Your task to perform on an android device: Go to notification settings Image 0: 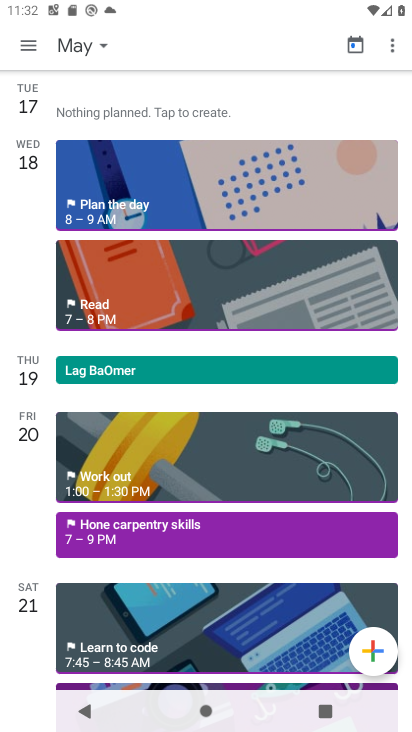
Step 0: press home button
Your task to perform on an android device: Go to notification settings Image 1: 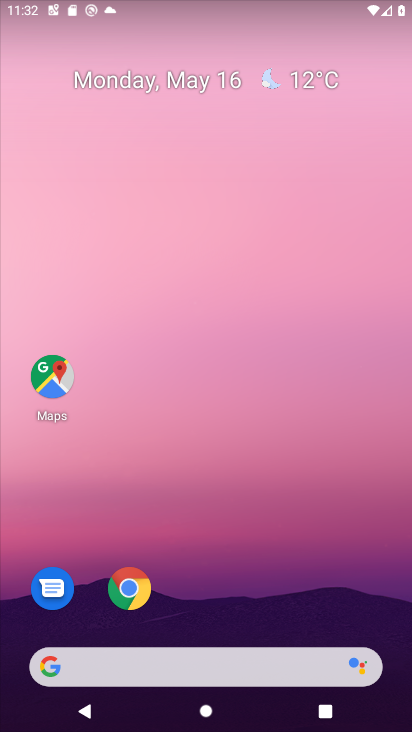
Step 1: drag from (219, 619) to (247, 55)
Your task to perform on an android device: Go to notification settings Image 2: 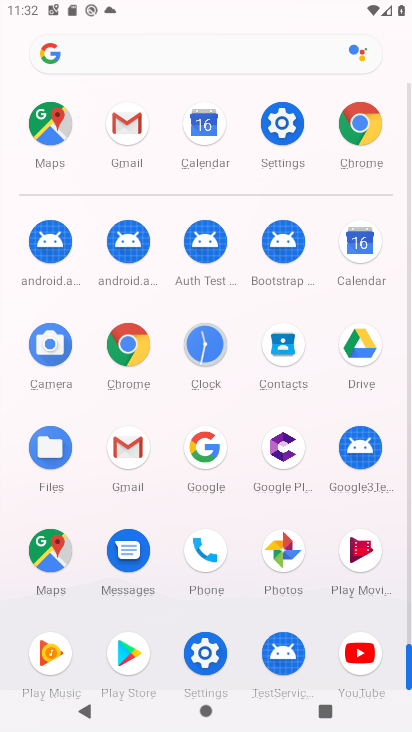
Step 2: click (277, 118)
Your task to perform on an android device: Go to notification settings Image 3: 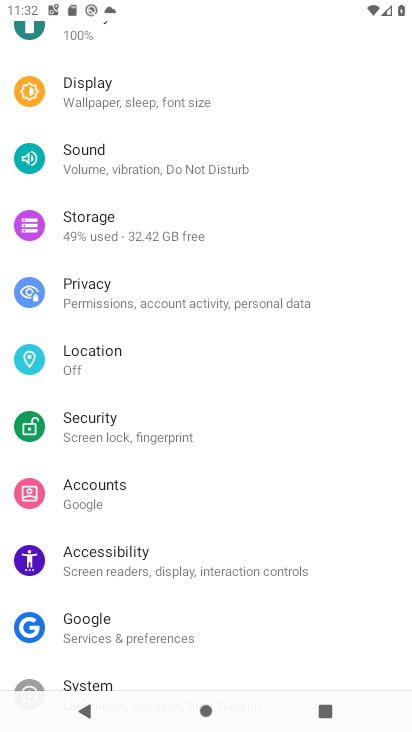
Step 3: drag from (105, 104) to (93, 613)
Your task to perform on an android device: Go to notification settings Image 4: 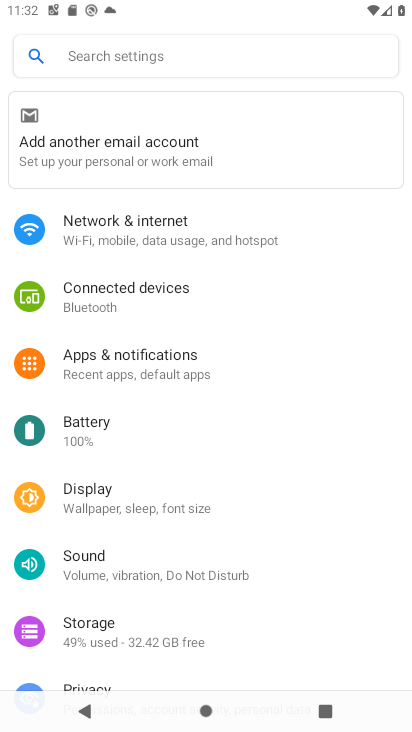
Step 4: click (207, 357)
Your task to perform on an android device: Go to notification settings Image 5: 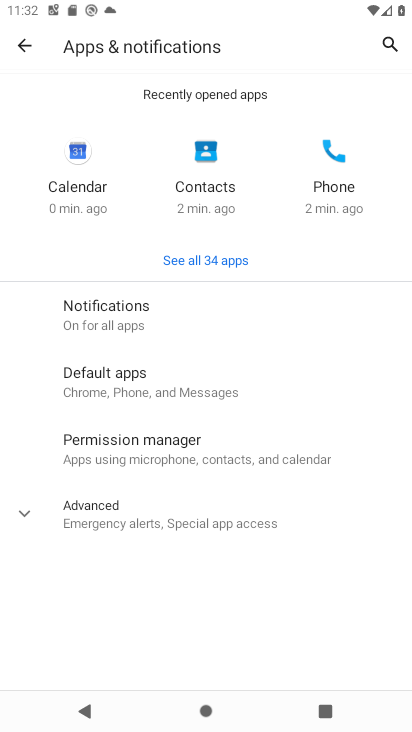
Step 5: click (164, 310)
Your task to perform on an android device: Go to notification settings Image 6: 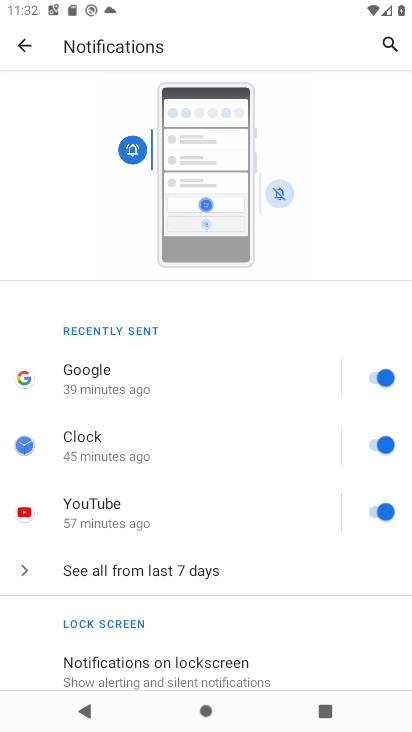
Step 6: drag from (277, 662) to (303, 238)
Your task to perform on an android device: Go to notification settings Image 7: 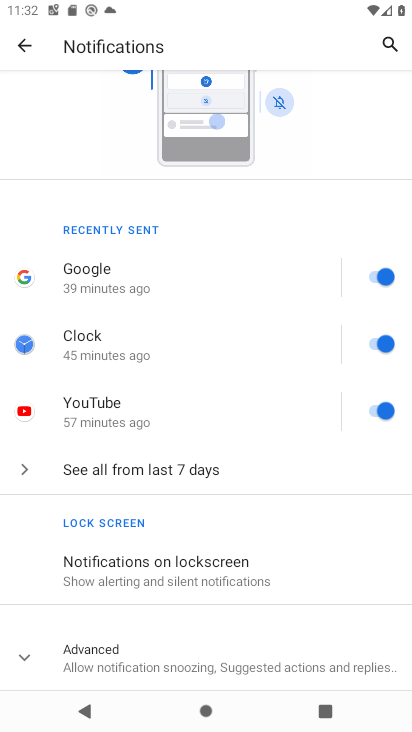
Step 7: click (22, 648)
Your task to perform on an android device: Go to notification settings Image 8: 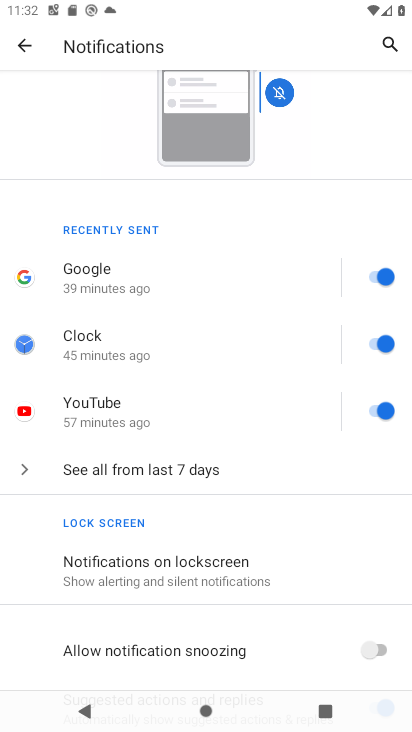
Step 8: drag from (134, 636) to (165, 238)
Your task to perform on an android device: Go to notification settings Image 9: 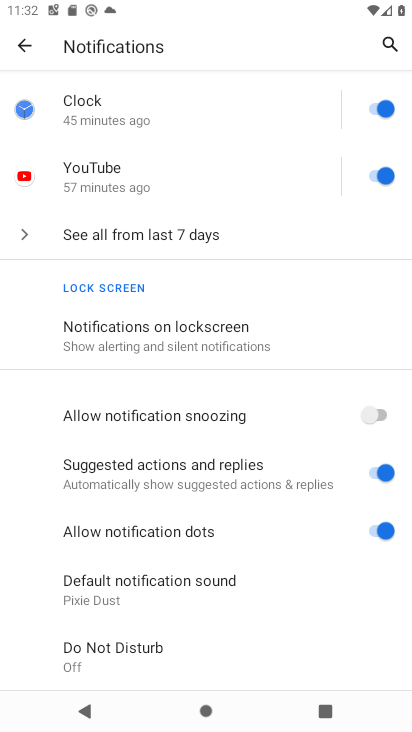
Step 9: drag from (41, 652) to (42, 341)
Your task to perform on an android device: Go to notification settings Image 10: 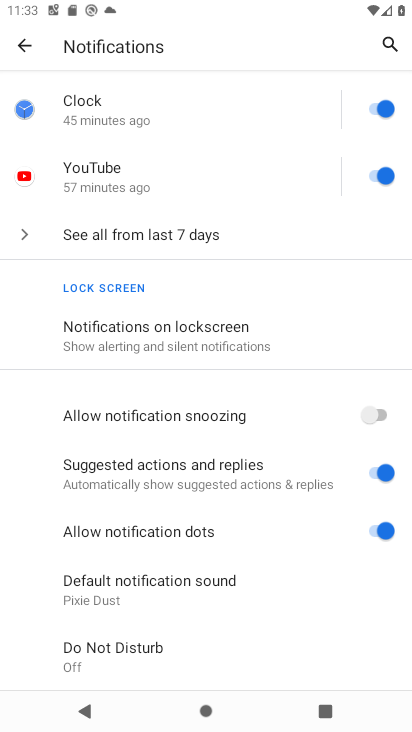
Step 10: drag from (46, 156) to (53, 627)
Your task to perform on an android device: Go to notification settings Image 11: 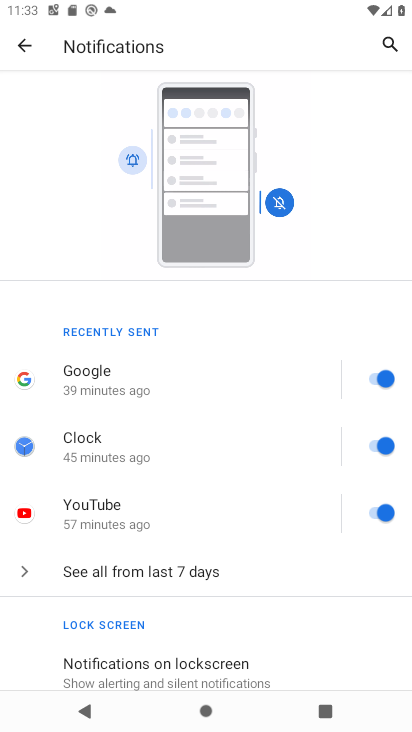
Step 11: click (375, 372)
Your task to perform on an android device: Go to notification settings Image 12: 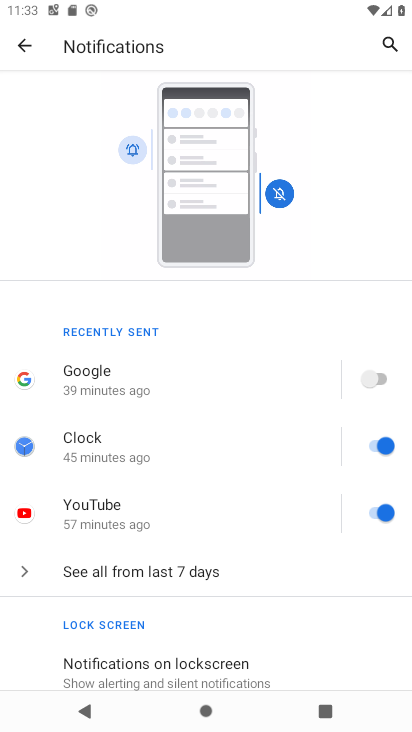
Step 12: click (377, 442)
Your task to perform on an android device: Go to notification settings Image 13: 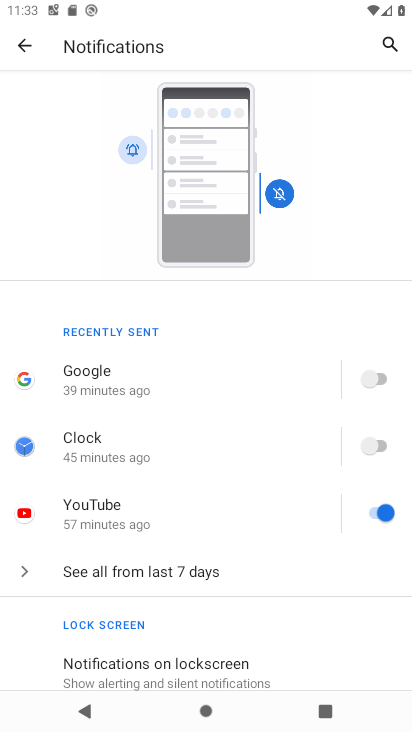
Step 13: click (381, 511)
Your task to perform on an android device: Go to notification settings Image 14: 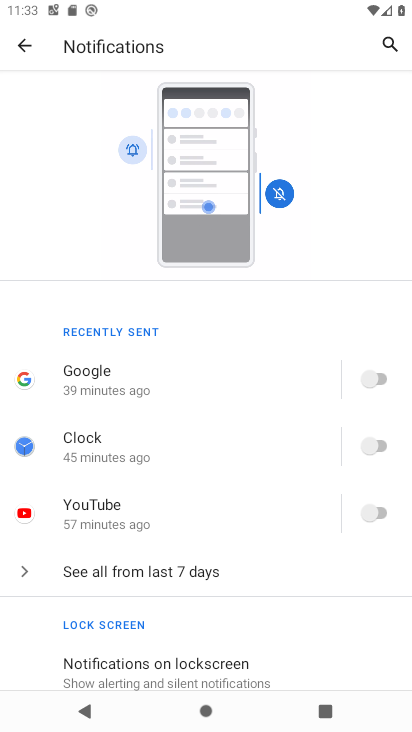
Step 14: drag from (202, 610) to (224, 172)
Your task to perform on an android device: Go to notification settings Image 15: 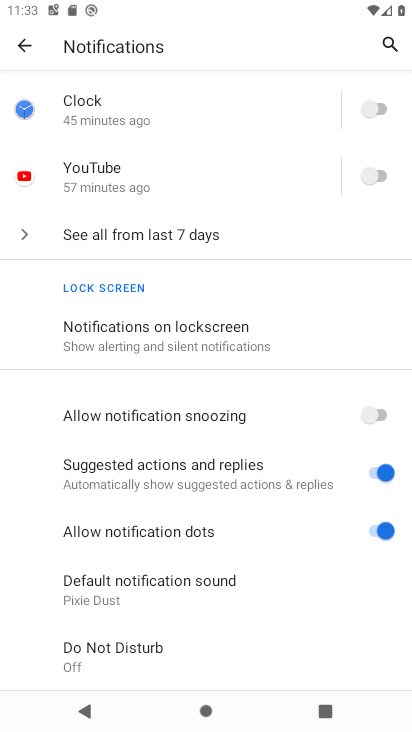
Step 15: click (379, 467)
Your task to perform on an android device: Go to notification settings Image 16: 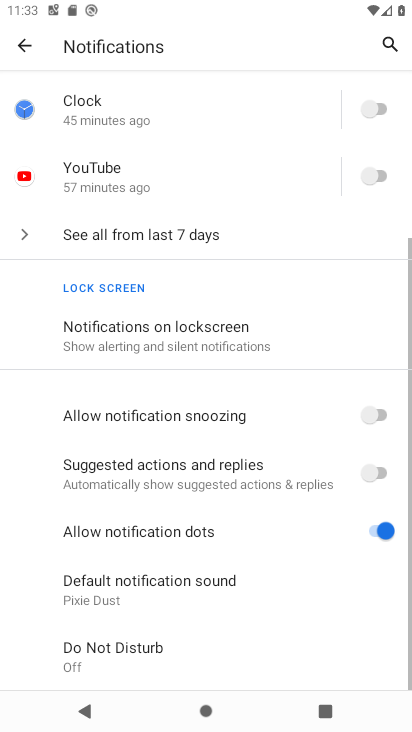
Step 16: click (380, 527)
Your task to perform on an android device: Go to notification settings Image 17: 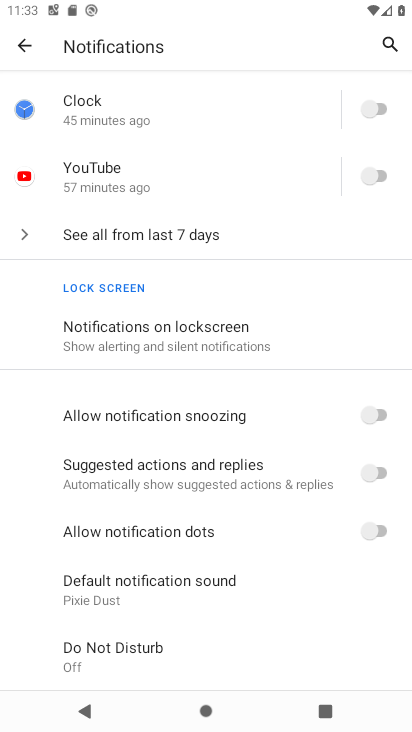
Step 17: task complete